Your task to perform on an android device: manage bookmarks in the chrome app Image 0: 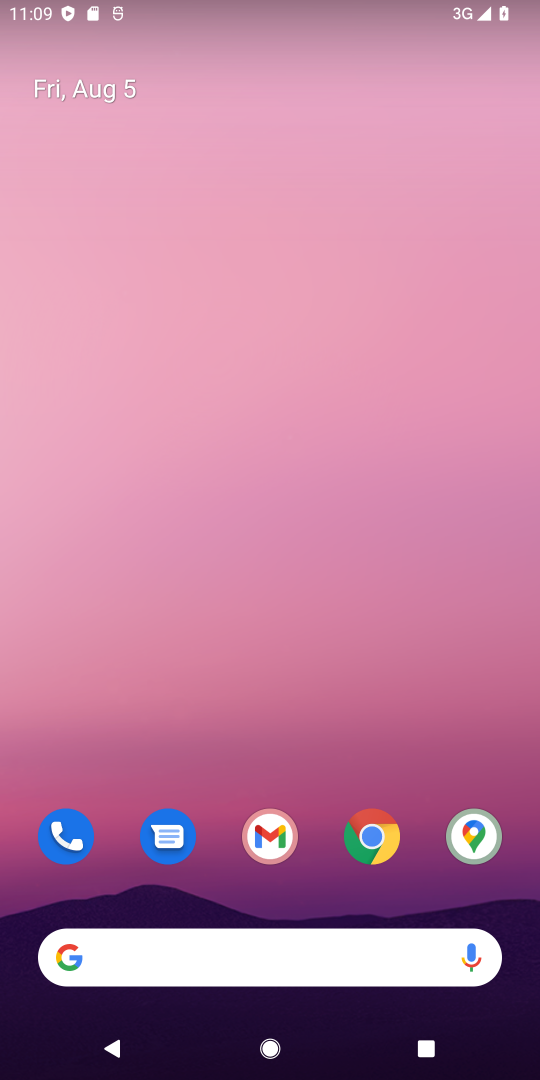
Step 0: drag from (330, 786) to (353, 197)
Your task to perform on an android device: manage bookmarks in the chrome app Image 1: 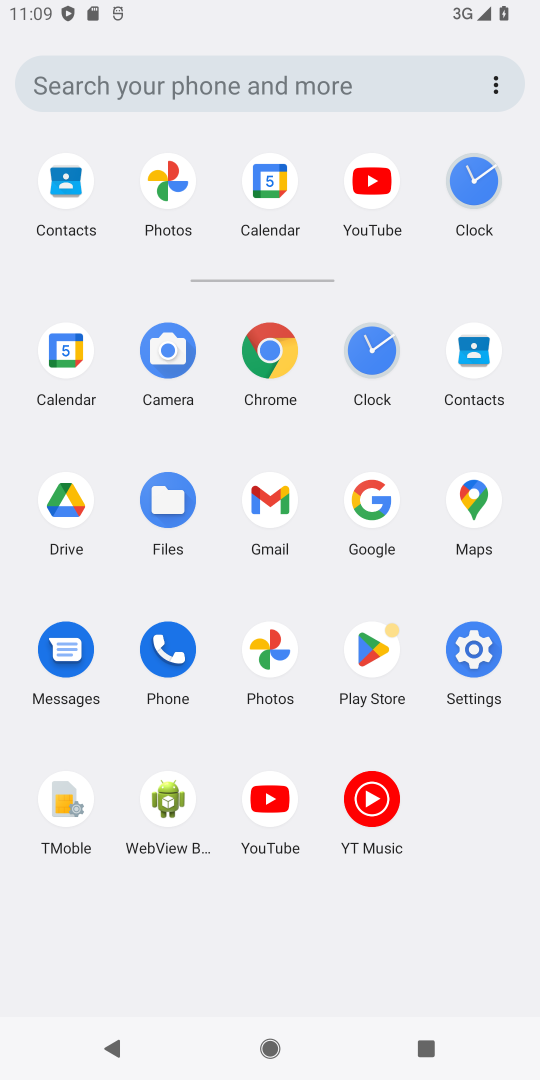
Step 1: click (266, 357)
Your task to perform on an android device: manage bookmarks in the chrome app Image 2: 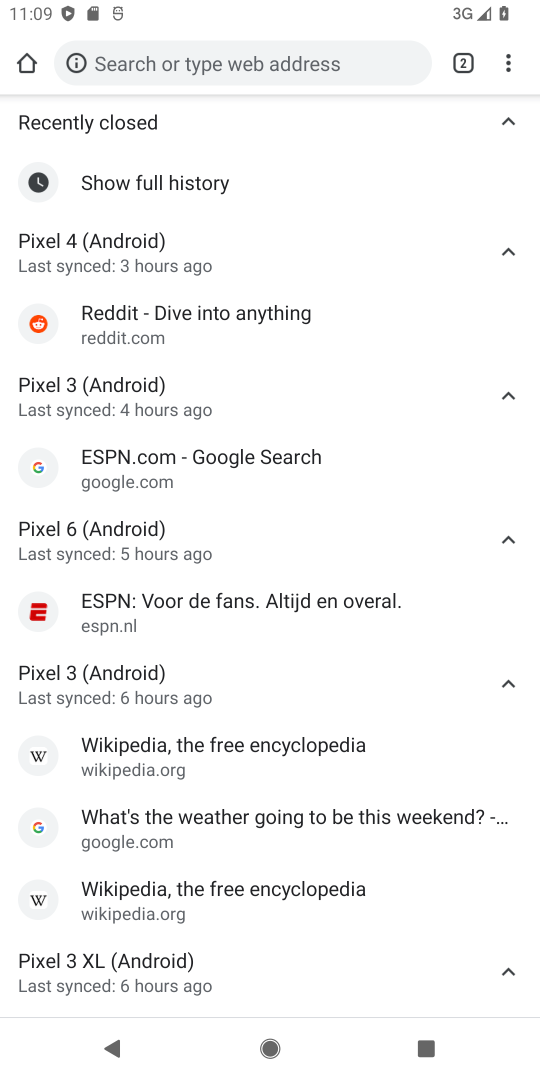
Step 2: drag from (517, 57) to (364, 415)
Your task to perform on an android device: manage bookmarks in the chrome app Image 3: 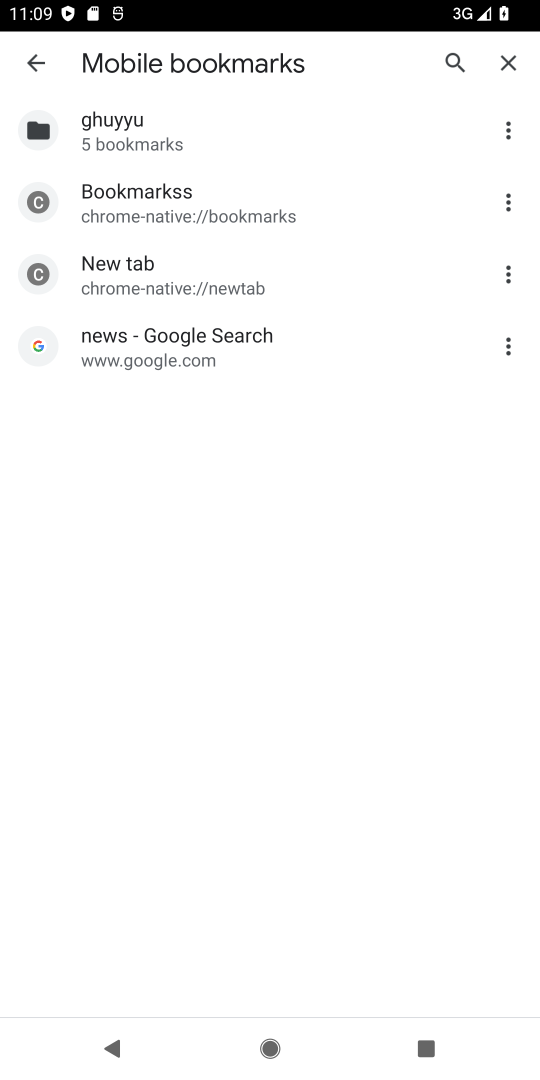
Step 3: click (507, 268)
Your task to perform on an android device: manage bookmarks in the chrome app Image 4: 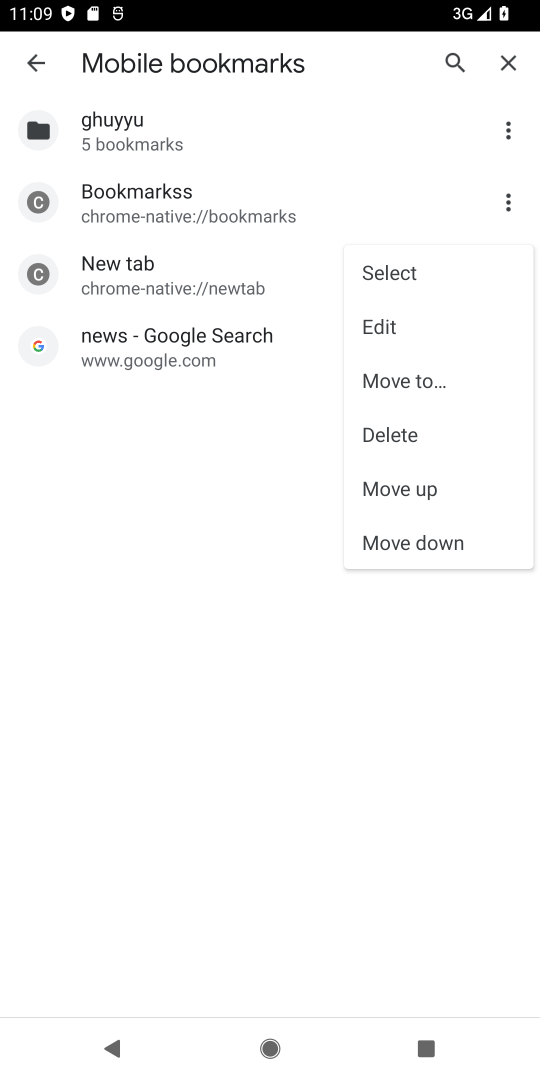
Step 4: click (400, 431)
Your task to perform on an android device: manage bookmarks in the chrome app Image 5: 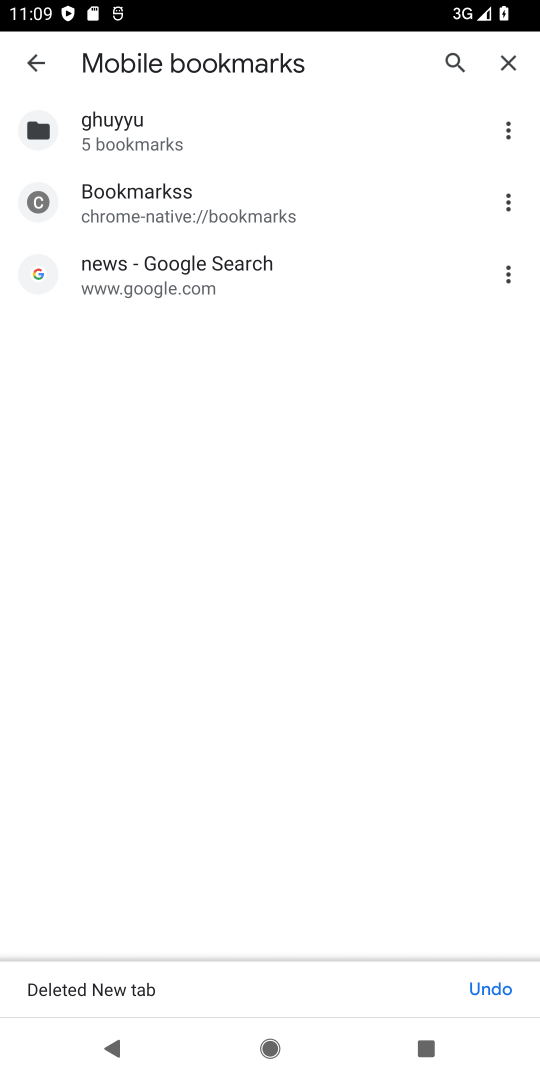
Step 5: task complete